Your task to perform on an android device: What's a good restaurant in New Jersey? Image 0: 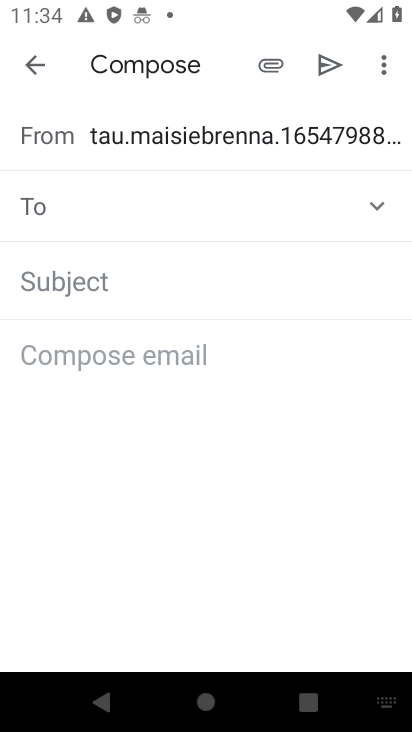
Step 0: press home button
Your task to perform on an android device: What's a good restaurant in New Jersey? Image 1: 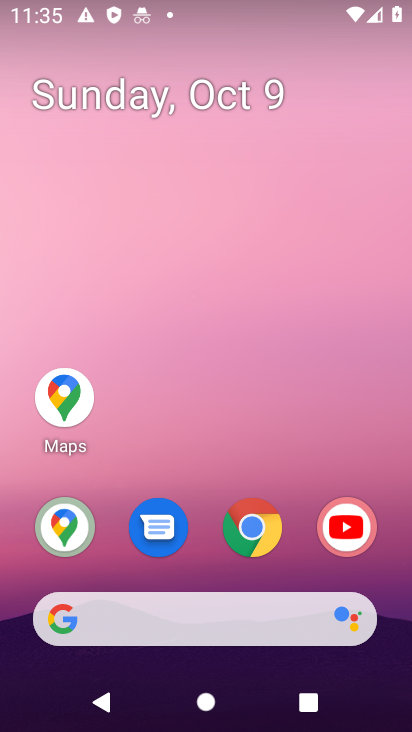
Step 1: click (259, 540)
Your task to perform on an android device: What's a good restaurant in New Jersey? Image 2: 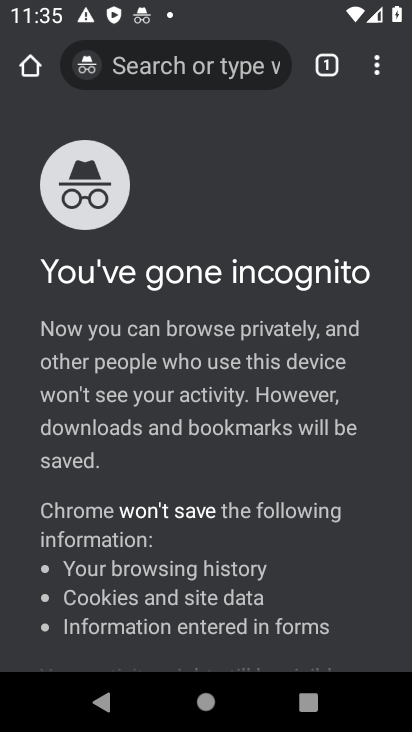
Step 2: click (246, 71)
Your task to perform on an android device: What's a good restaurant in New Jersey? Image 3: 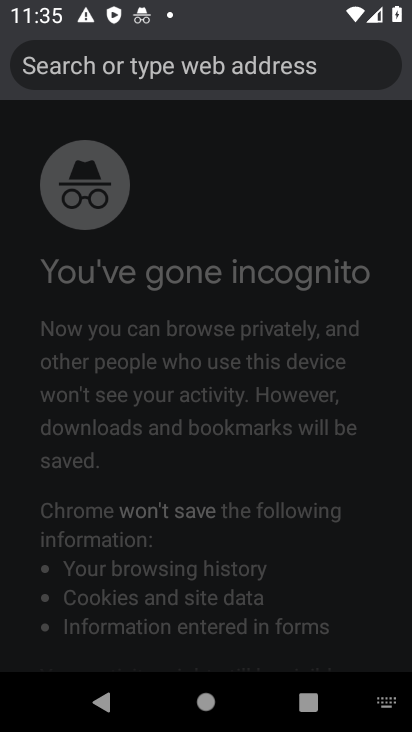
Step 3: type "What's a good restaurant in New Jersey ?"
Your task to perform on an android device: What's a good restaurant in New Jersey? Image 4: 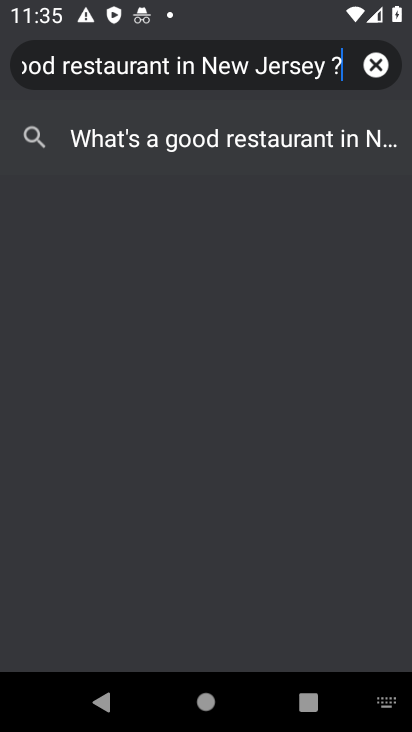
Step 4: click (275, 144)
Your task to perform on an android device: What's a good restaurant in New Jersey? Image 5: 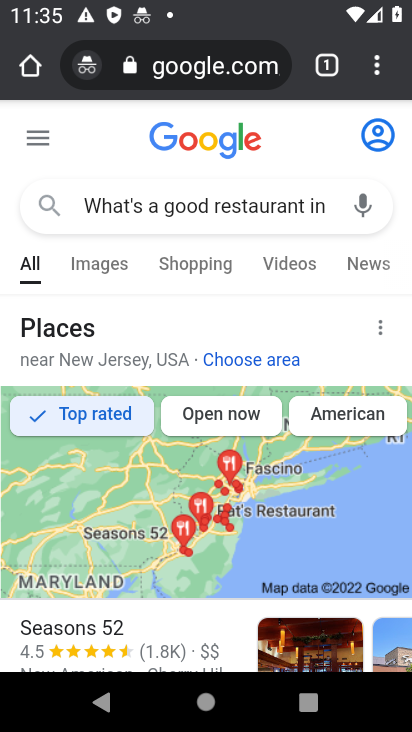
Step 5: task complete